Your task to perform on an android device: Open Wikipedia Image 0: 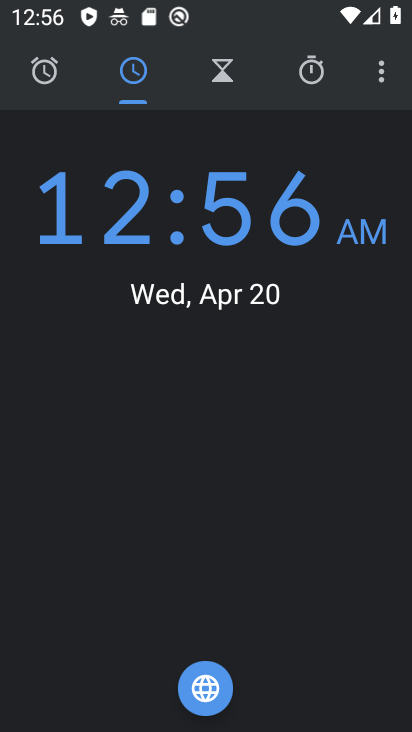
Step 0: press home button
Your task to perform on an android device: Open Wikipedia Image 1: 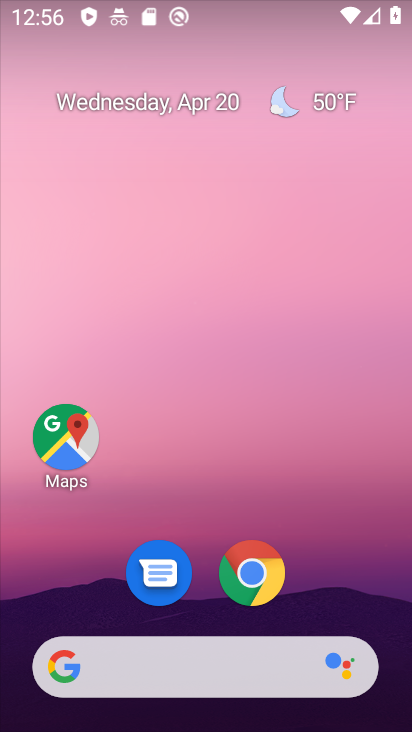
Step 1: click (249, 583)
Your task to perform on an android device: Open Wikipedia Image 2: 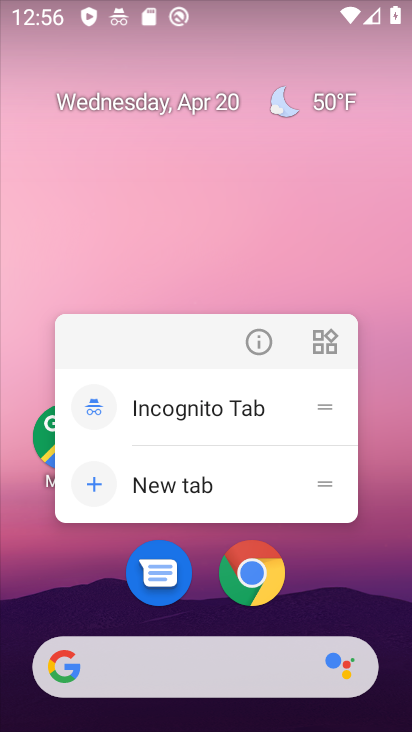
Step 2: click (249, 583)
Your task to perform on an android device: Open Wikipedia Image 3: 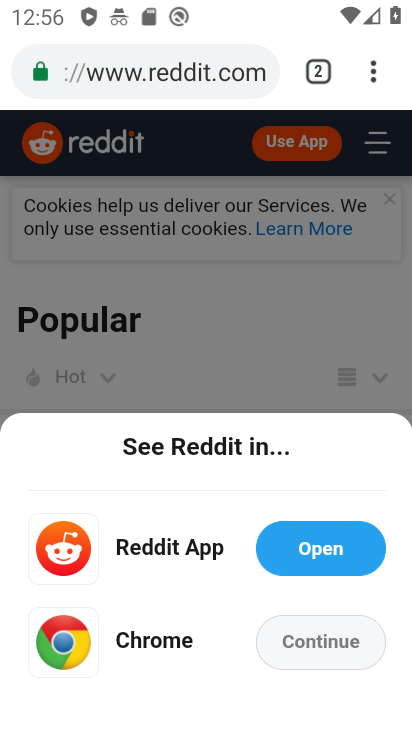
Step 3: click (378, 67)
Your task to perform on an android device: Open Wikipedia Image 4: 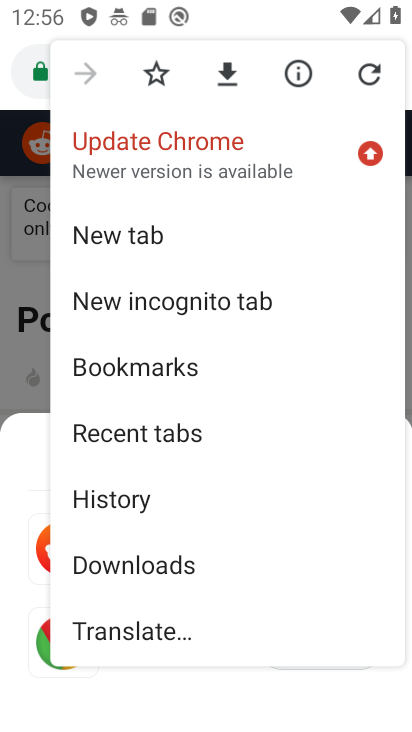
Step 4: click (134, 238)
Your task to perform on an android device: Open Wikipedia Image 5: 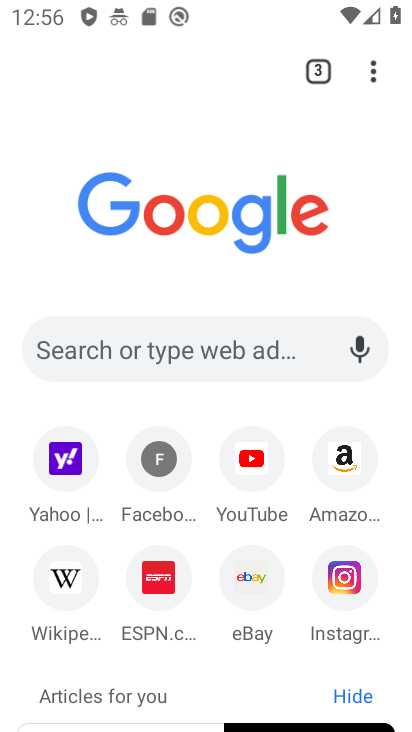
Step 5: click (63, 588)
Your task to perform on an android device: Open Wikipedia Image 6: 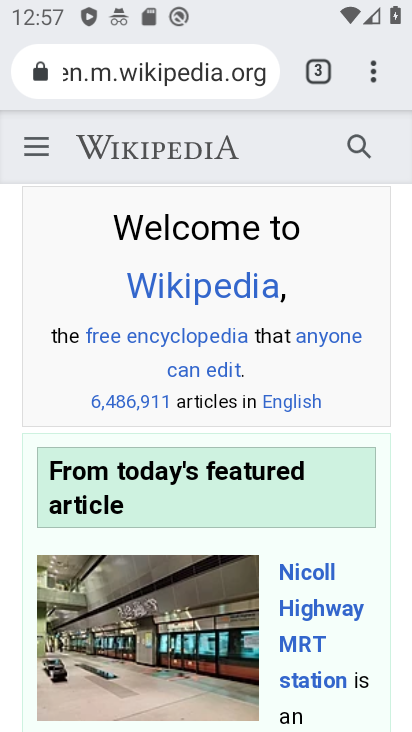
Step 6: task complete